Your task to perform on an android device: Open Chrome and go to settings Image 0: 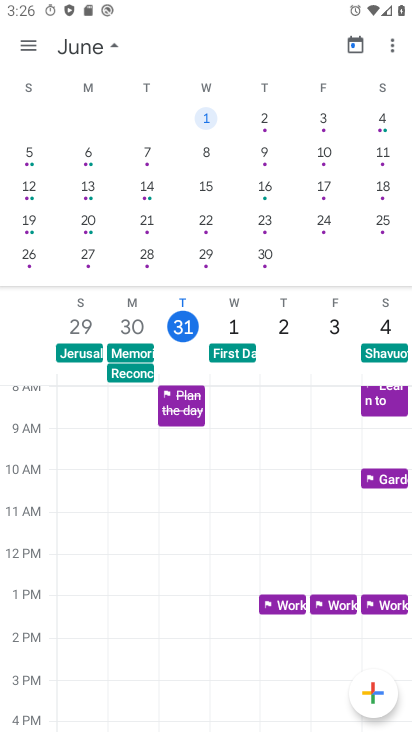
Step 0: press home button
Your task to perform on an android device: Open Chrome and go to settings Image 1: 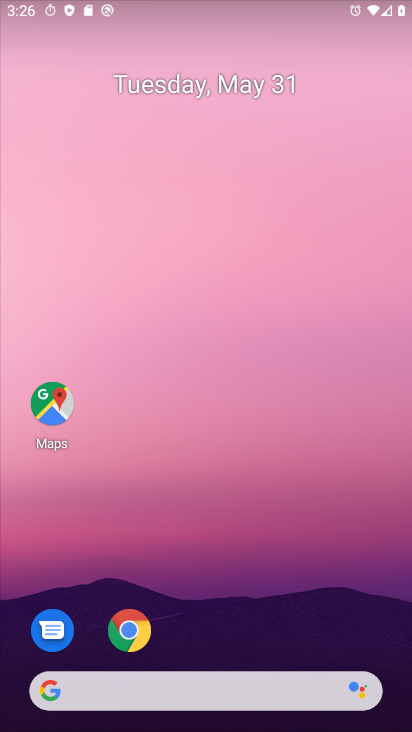
Step 1: drag from (307, 703) to (408, 451)
Your task to perform on an android device: Open Chrome and go to settings Image 2: 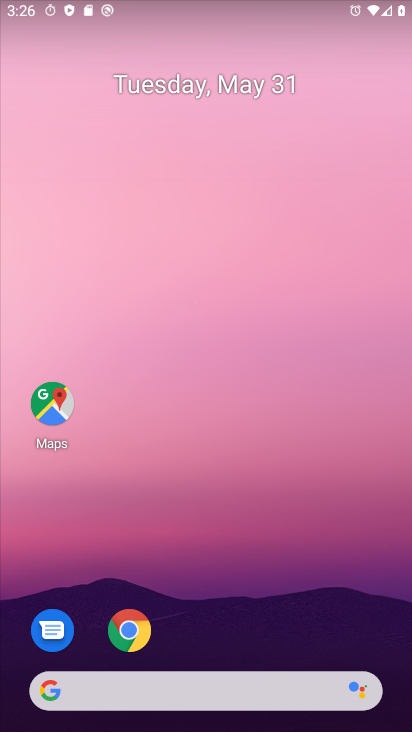
Step 2: drag from (151, 664) to (206, 136)
Your task to perform on an android device: Open Chrome and go to settings Image 3: 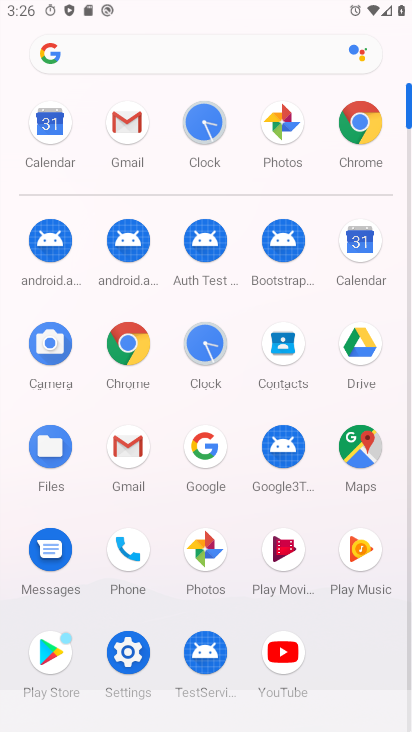
Step 3: click (128, 360)
Your task to perform on an android device: Open Chrome and go to settings Image 4: 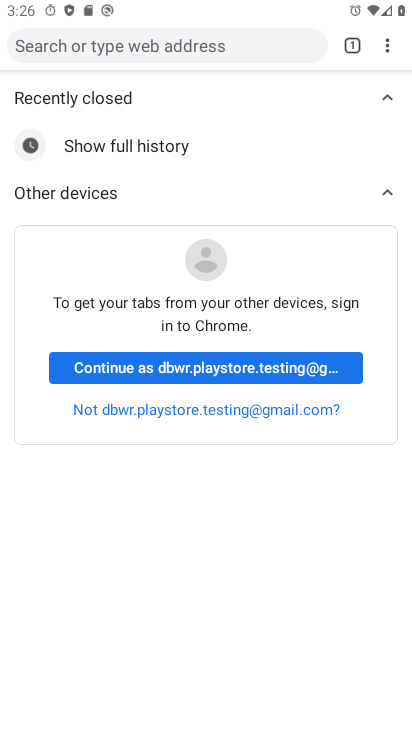
Step 4: task complete